Your task to perform on an android device: all mails in gmail Image 0: 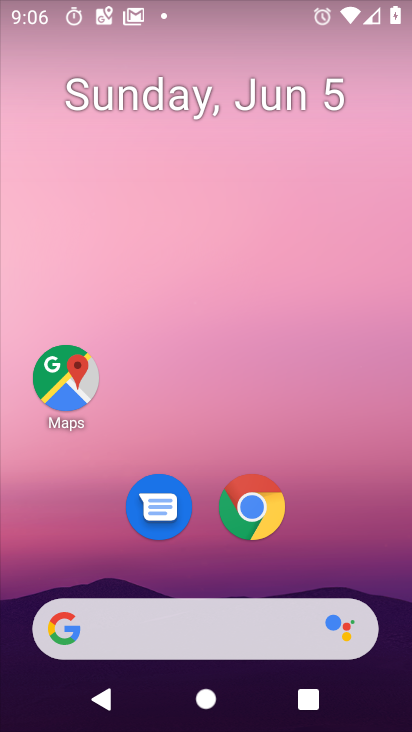
Step 0: drag from (201, 666) to (194, 104)
Your task to perform on an android device: all mails in gmail Image 1: 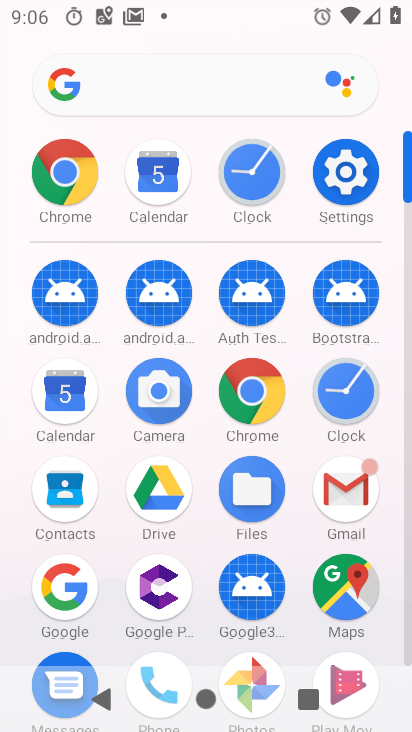
Step 1: click (342, 480)
Your task to perform on an android device: all mails in gmail Image 2: 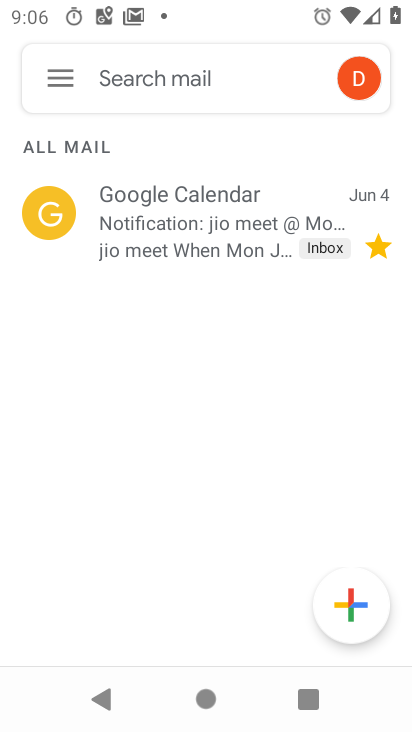
Step 2: click (34, 92)
Your task to perform on an android device: all mails in gmail Image 3: 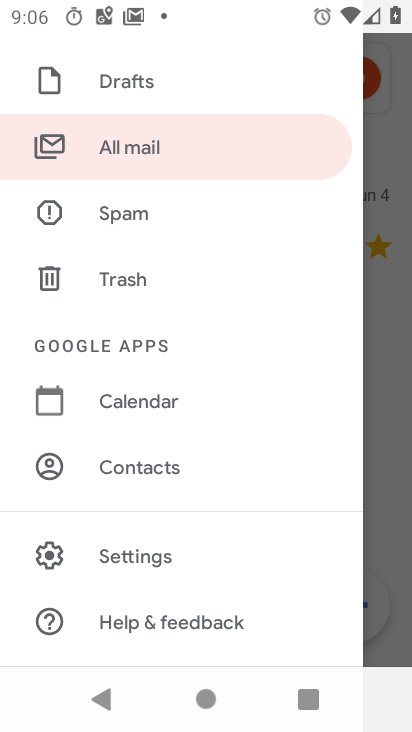
Step 3: click (114, 156)
Your task to perform on an android device: all mails in gmail Image 4: 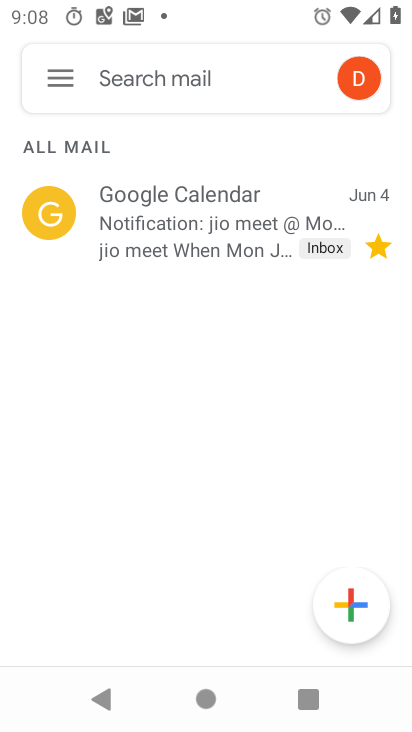
Step 4: task complete